Your task to perform on an android device: Search for Italian restaurants on Maps Image 0: 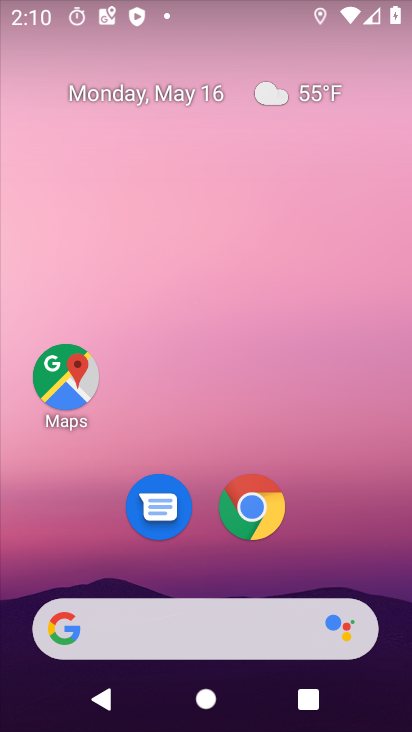
Step 0: drag from (213, 571) to (168, 134)
Your task to perform on an android device: Search for Italian restaurants on Maps Image 1: 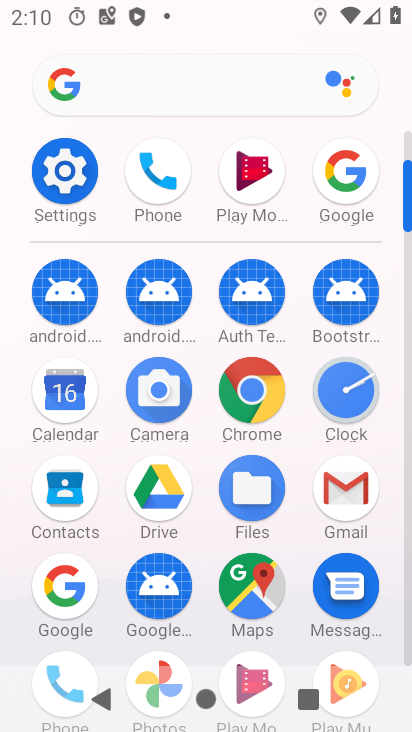
Step 1: click (243, 586)
Your task to perform on an android device: Search for Italian restaurants on Maps Image 2: 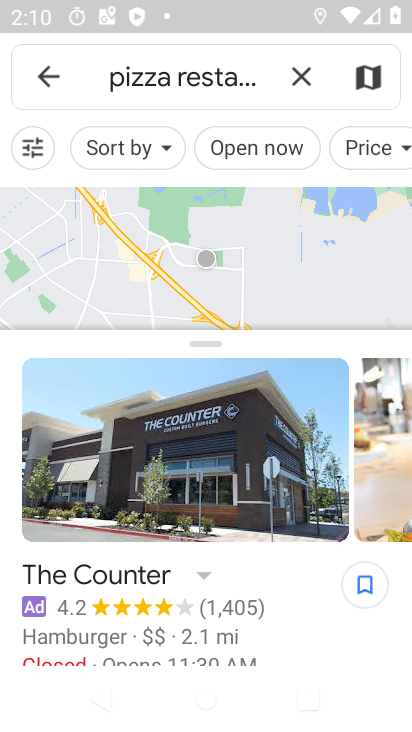
Step 2: click (239, 83)
Your task to perform on an android device: Search for Italian restaurants on Maps Image 3: 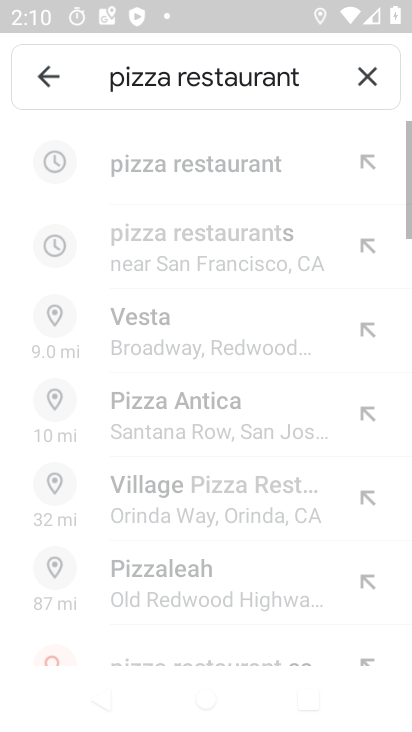
Step 3: click (375, 76)
Your task to perform on an android device: Search for Italian restaurants on Maps Image 4: 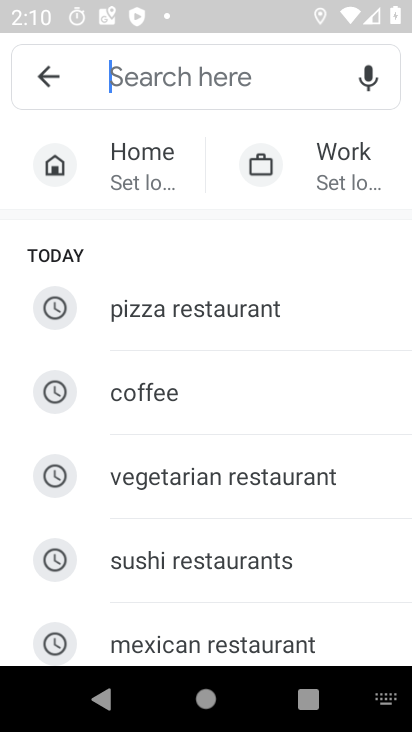
Step 4: drag from (204, 606) to (197, 236)
Your task to perform on an android device: Search for Italian restaurants on Maps Image 5: 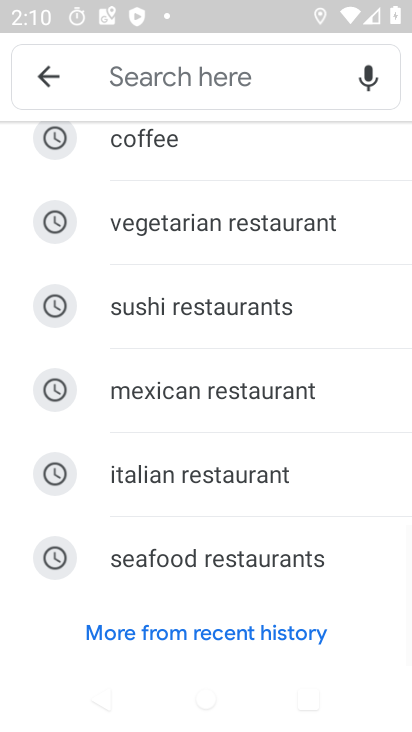
Step 5: click (214, 472)
Your task to perform on an android device: Search for Italian restaurants on Maps Image 6: 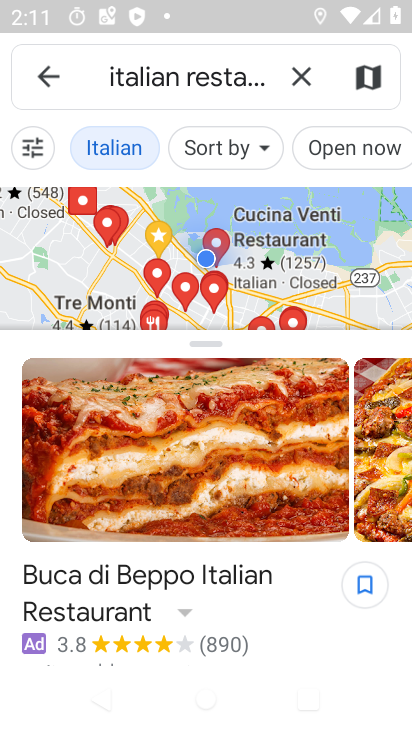
Step 6: task complete